Your task to perform on an android device: find which apps use the phone's location Image 0: 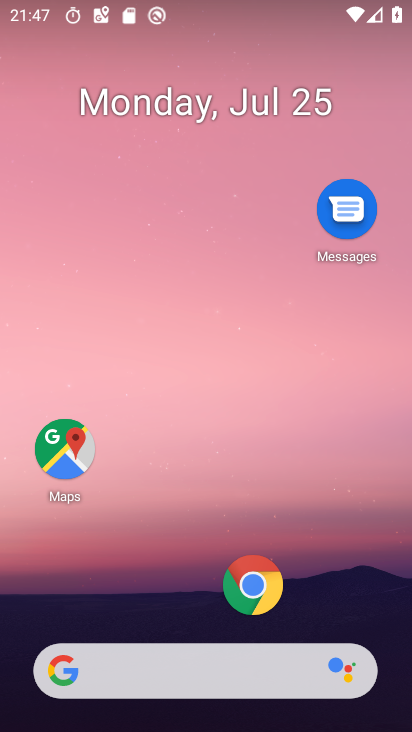
Step 0: drag from (188, 651) to (255, 82)
Your task to perform on an android device: find which apps use the phone's location Image 1: 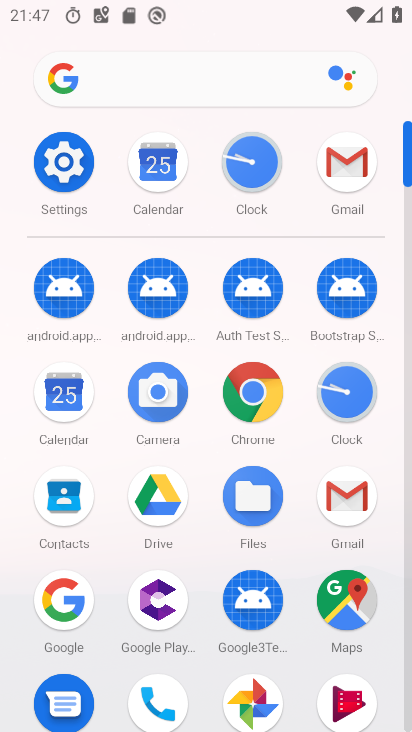
Step 1: click (69, 158)
Your task to perform on an android device: find which apps use the phone's location Image 2: 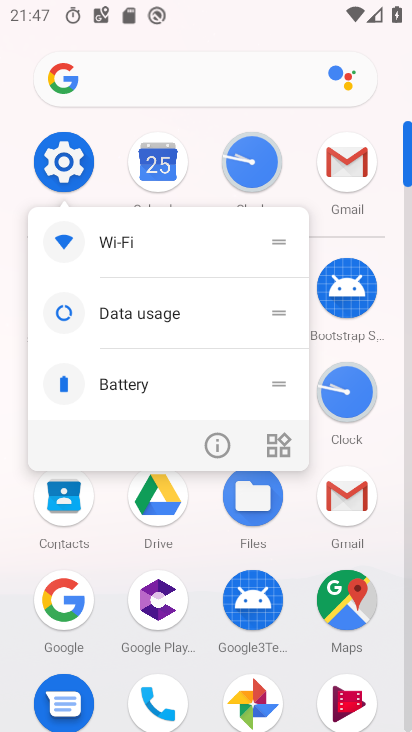
Step 2: click (67, 160)
Your task to perform on an android device: find which apps use the phone's location Image 3: 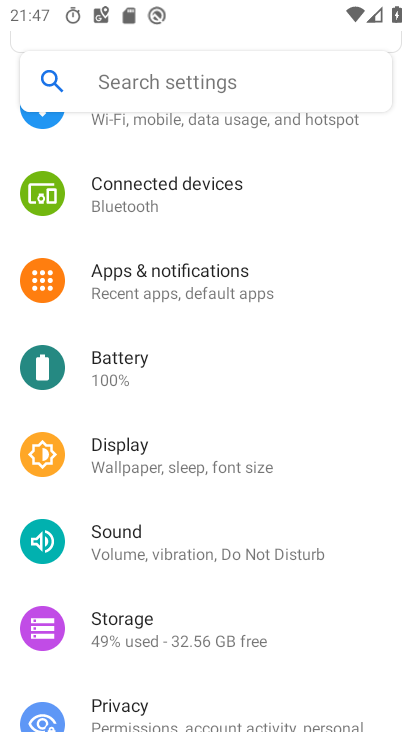
Step 3: drag from (228, 662) to (273, 263)
Your task to perform on an android device: find which apps use the phone's location Image 4: 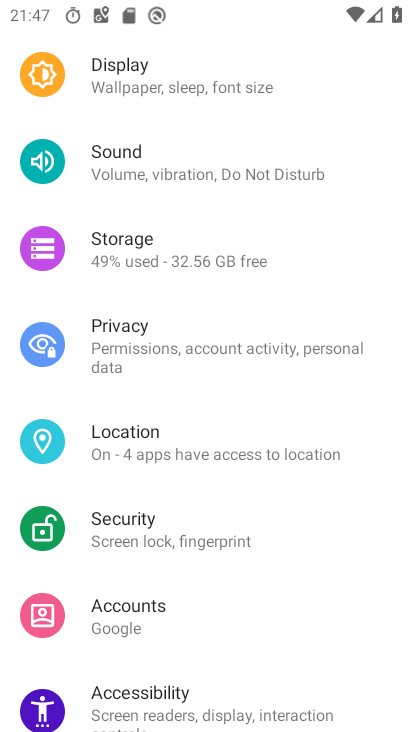
Step 4: click (168, 443)
Your task to perform on an android device: find which apps use the phone's location Image 5: 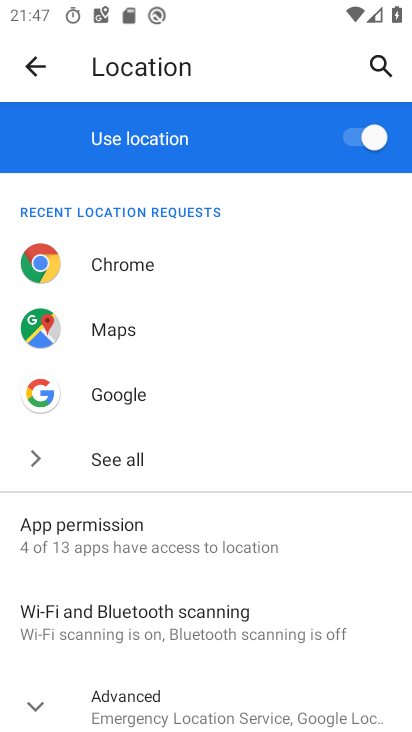
Step 5: click (130, 542)
Your task to perform on an android device: find which apps use the phone's location Image 6: 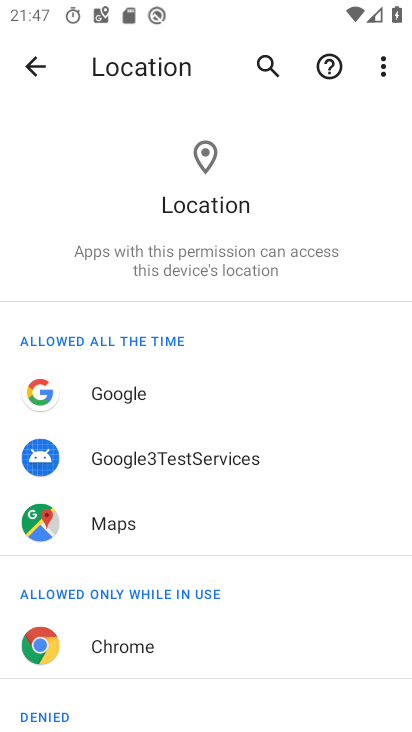
Step 6: drag from (218, 649) to (313, 123)
Your task to perform on an android device: find which apps use the phone's location Image 7: 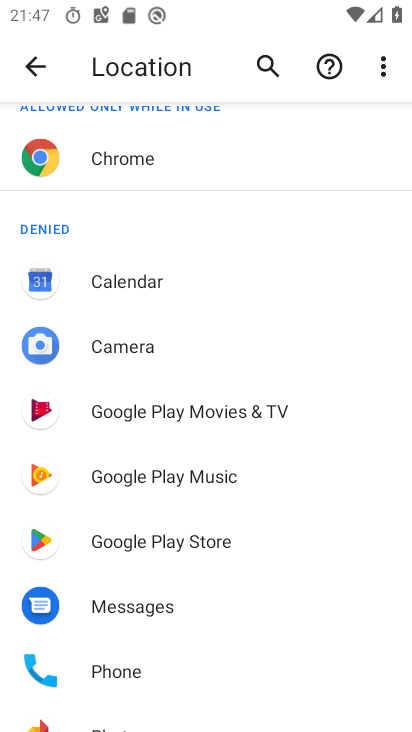
Step 7: click (136, 665)
Your task to perform on an android device: find which apps use the phone's location Image 8: 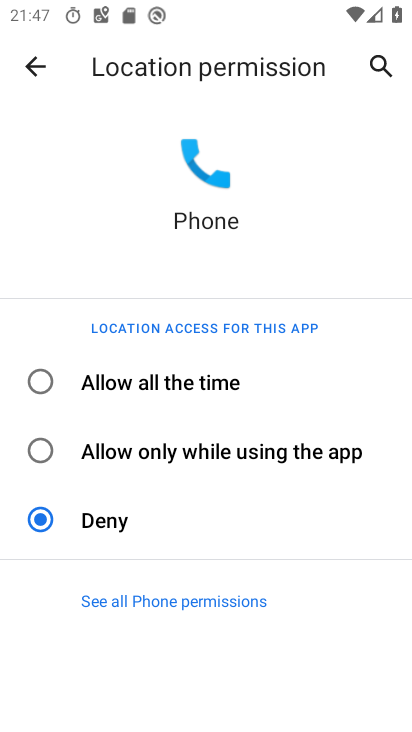
Step 8: task complete